Your task to perform on an android device: Open Google Image 0: 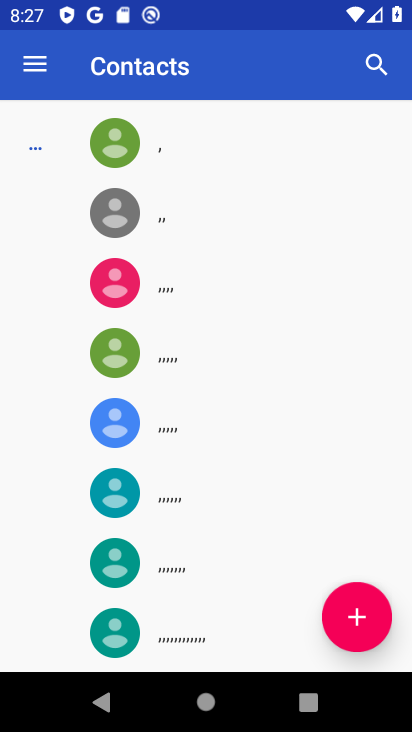
Step 0: press home button
Your task to perform on an android device: Open Google Image 1: 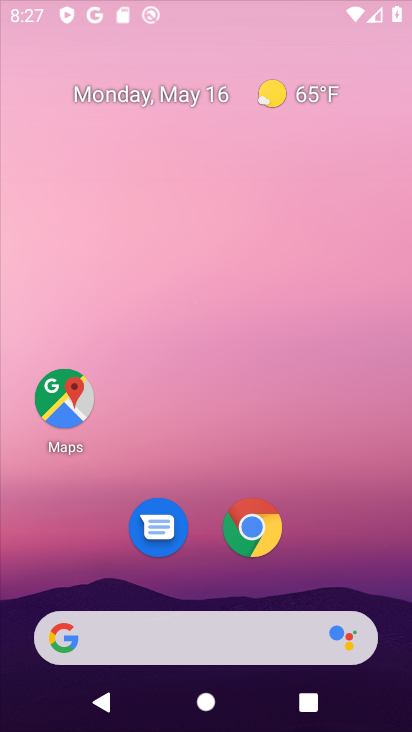
Step 1: drag from (284, 386) to (273, 184)
Your task to perform on an android device: Open Google Image 2: 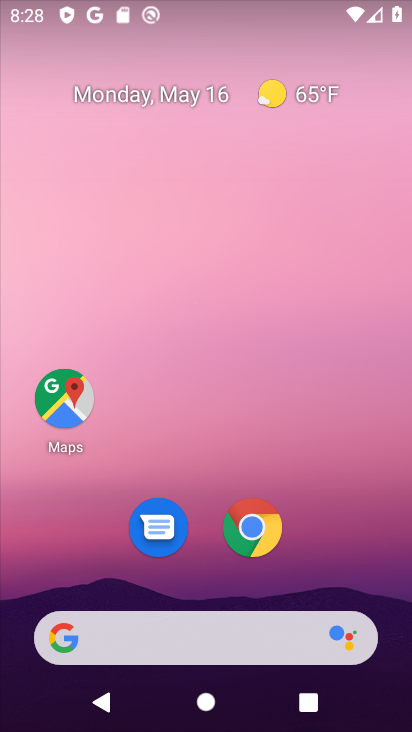
Step 2: drag from (146, 558) to (162, 250)
Your task to perform on an android device: Open Google Image 3: 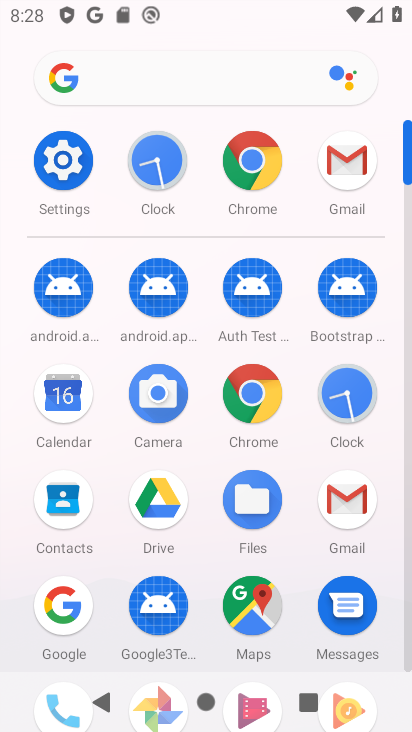
Step 3: click (62, 590)
Your task to perform on an android device: Open Google Image 4: 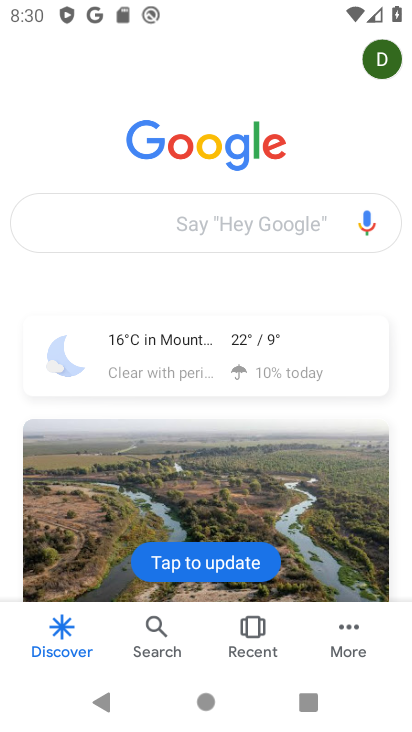
Step 4: task complete